Your task to perform on an android device: Open calendar and show me the third week of next month Image 0: 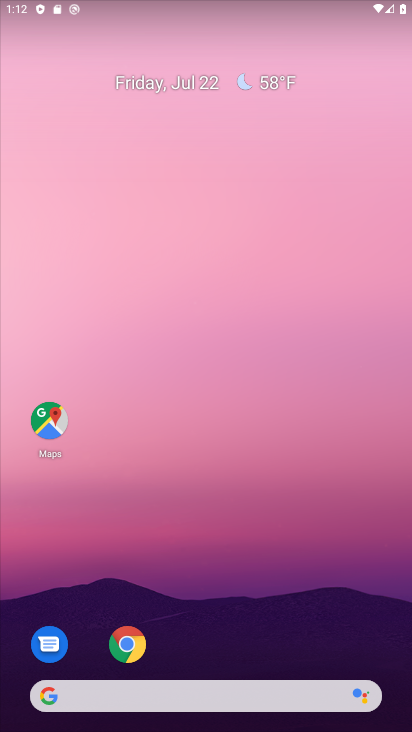
Step 0: drag from (220, 676) to (258, 155)
Your task to perform on an android device: Open calendar and show me the third week of next month Image 1: 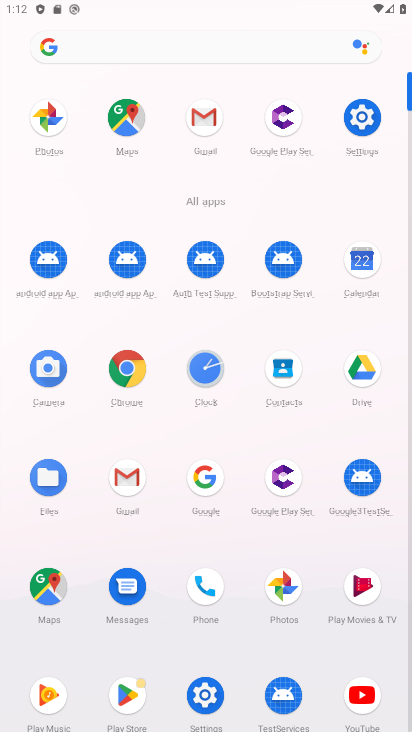
Step 1: click (373, 254)
Your task to perform on an android device: Open calendar and show me the third week of next month Image 2: 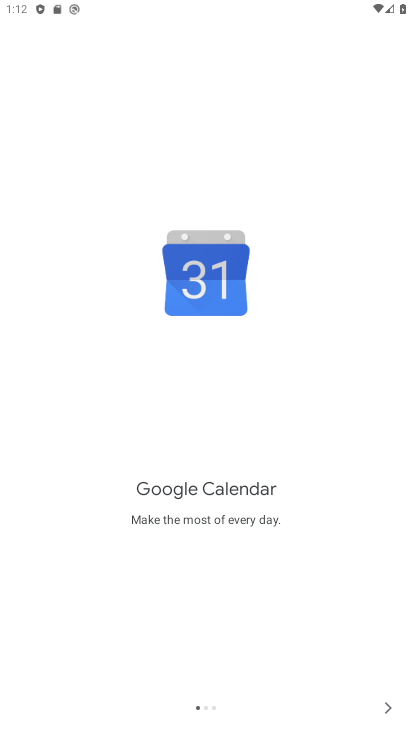
Step 2: click (389, 709)
Your task to perform on an android device: Open calendar and show me the third week of next month Image 3: 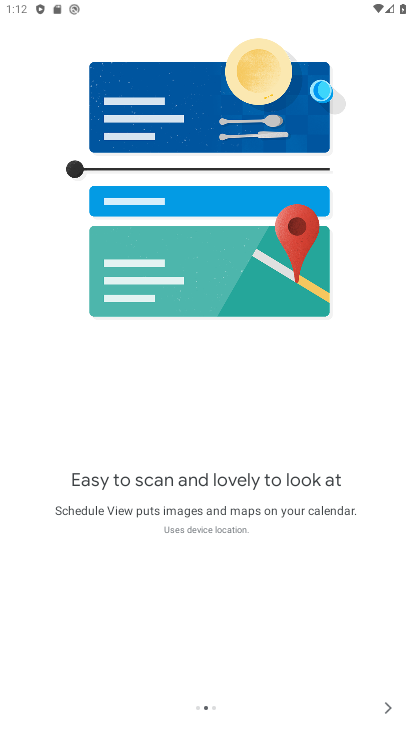
Step 3: click (388, 708)
Your task to perform on an android device: Open calendar and show me the third week of next month Image 4: 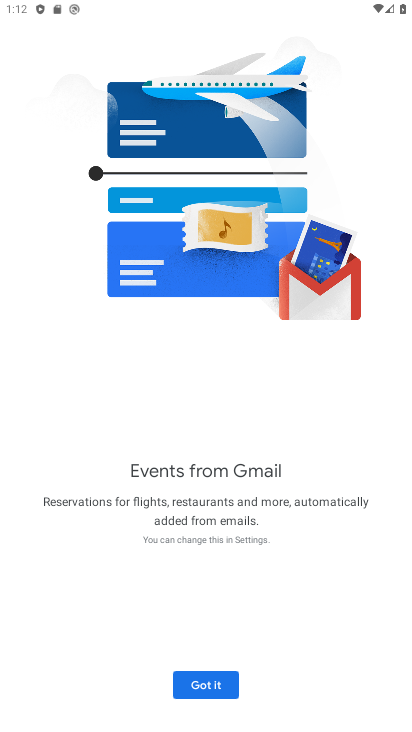
Step 4: click (202, 682)
Your task to perform on an android device: Open calendar and show me the third week of next month Image 5: 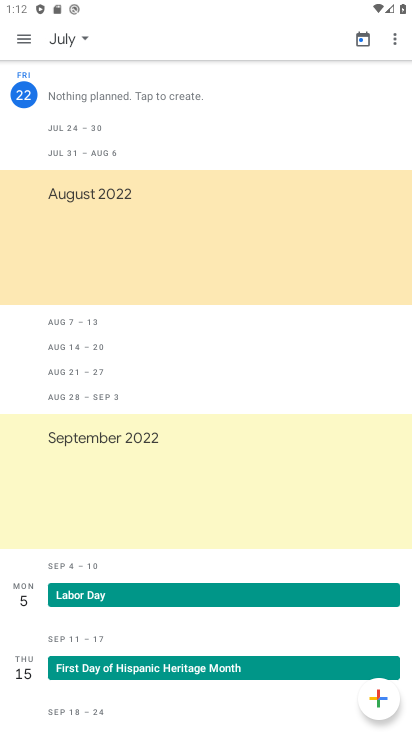
Step 5: click (68, 36)
Your task to perform on an android device: Open calendar and show me the third week of next month Image 6: 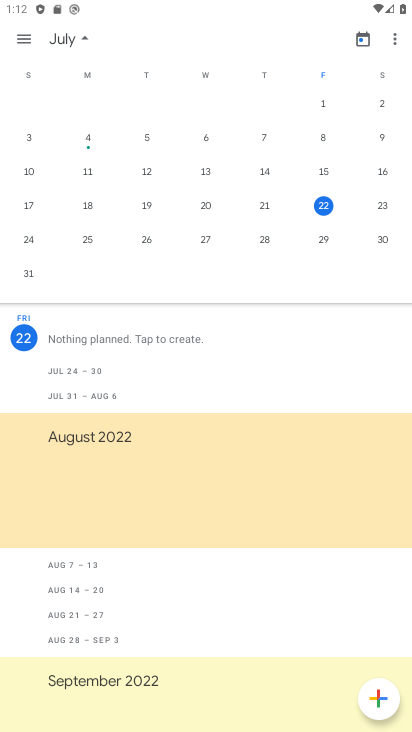
Step 6: drag from (375, 233) to (39, 225)
Your task to perform on an android device: Open calendar and show me the third week of next month Image 7: 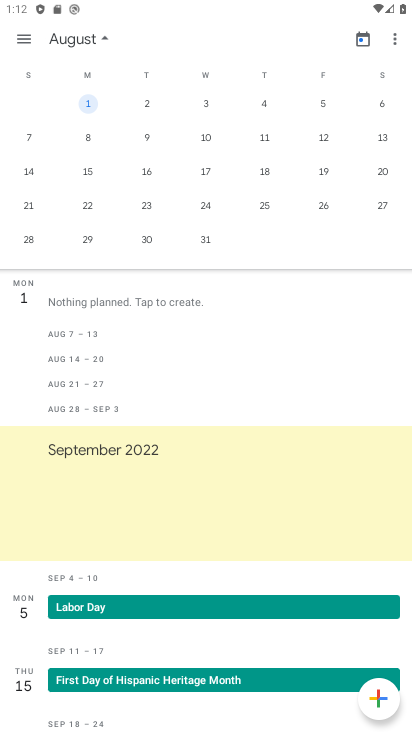
Step 7: click (30, 169)
Your task to perform on an android device: Open calendar and show me the third week of next month Image 8: 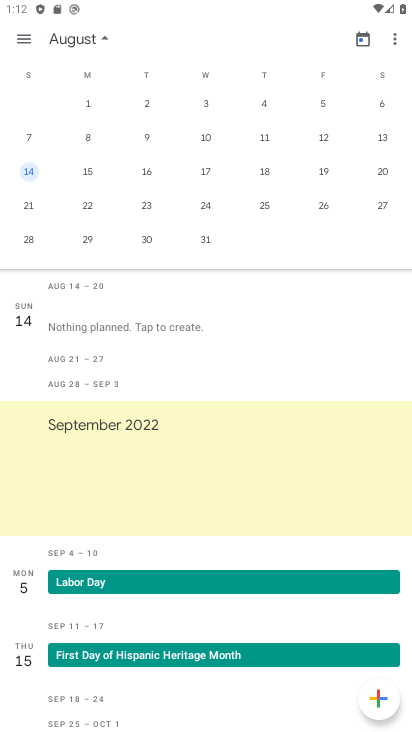
Step 8: task complete